Your task to perform on an android device: Open calendar and show me the second week of next month Image 0: 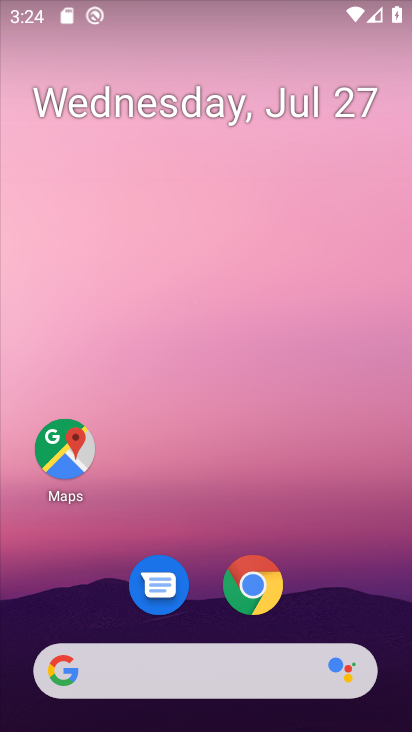
Step 0: drag from (335, 589) to (258, 80)
Your task to perform on an android device: Open calendar and show me the second week of next month Image 1: 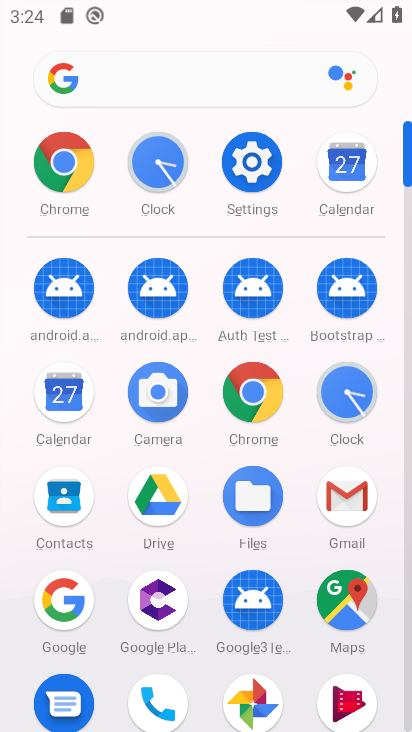
Step 1: click (339, 163)
Your task to perform on an android device: Open calendar and show me the second week of next month Image 2: 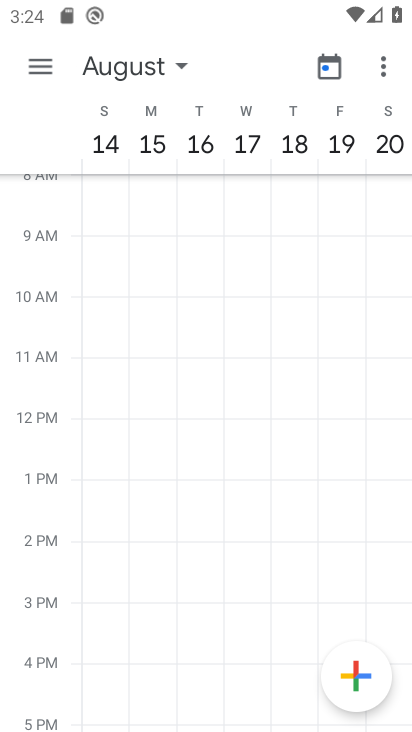
Step 2: task complete